Your task to perform on an android device: What's the weather going to be this weekend? Image 0: 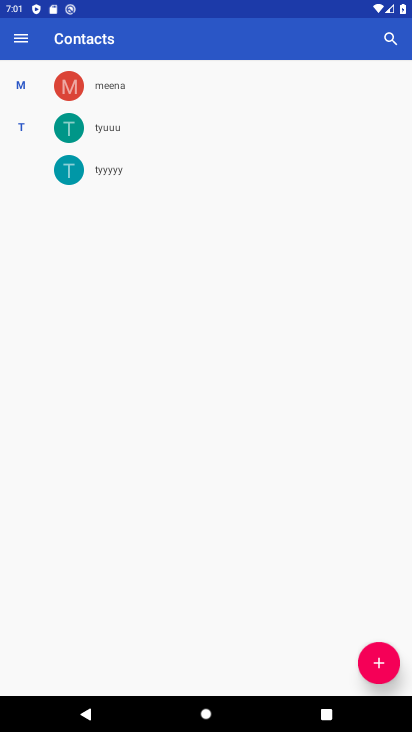
Step 0: press home button
Your task to perform on an android device: What's the weather going to be this weekend? Image 1: 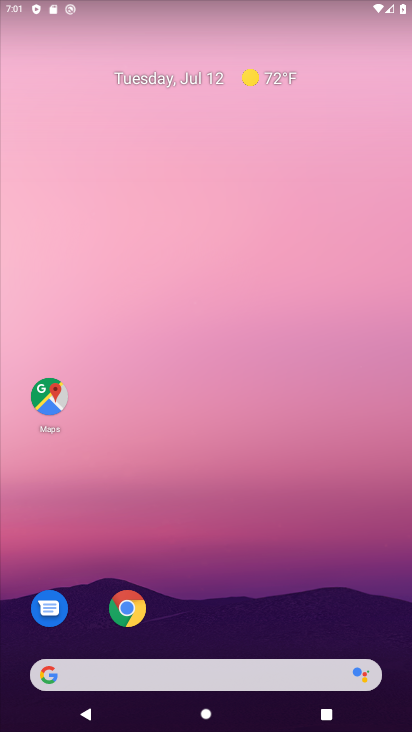
Step 1: click (208, 672)
Your task to perform on an android device: What's the weather going to be this weekend? Image 2: 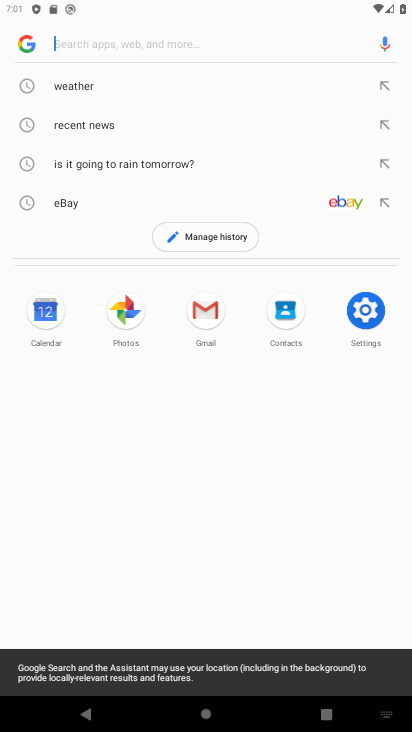
Step 2: click (65, 80)
Your task to perform on an android device: What's the weather going to be this weekend? Image 3: 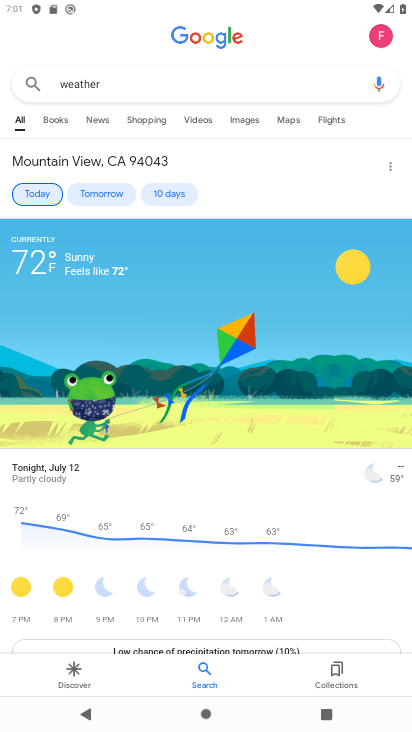
Step 3: click (169, 191)
Your task to perform on an android device: What's the weather going to be this weekend? Image 4: 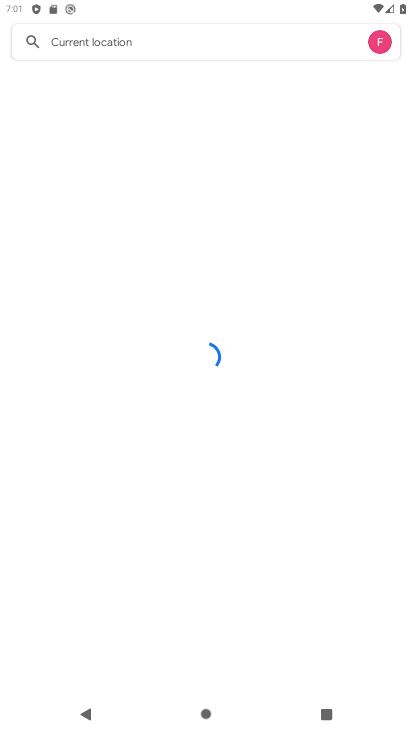
Step 4: click (169, 191)
Your task to perform on an android device: What's the weather going to be this weekend? Image 5: 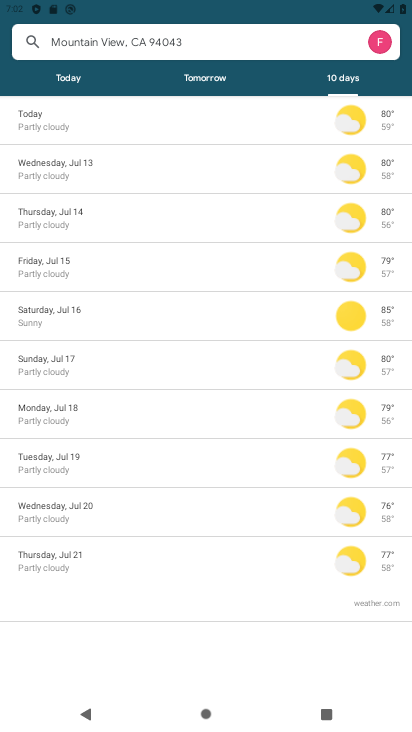
Step 5: task complete